Your task to perform on an android device: delete location history Image 0: 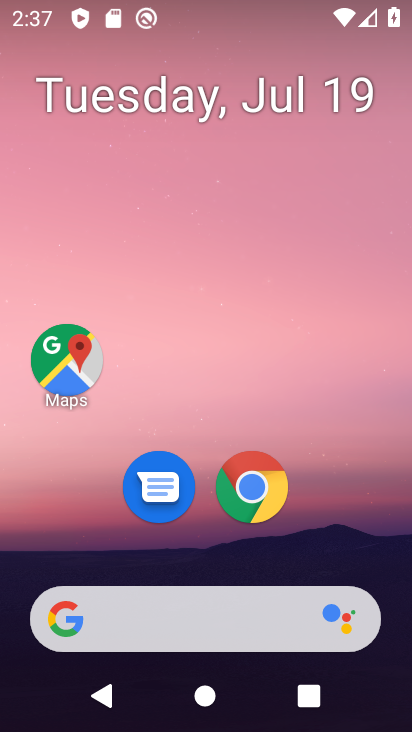
Step 0: click (52, 365)
Your task to perform on an android device: delete location history Image 1: 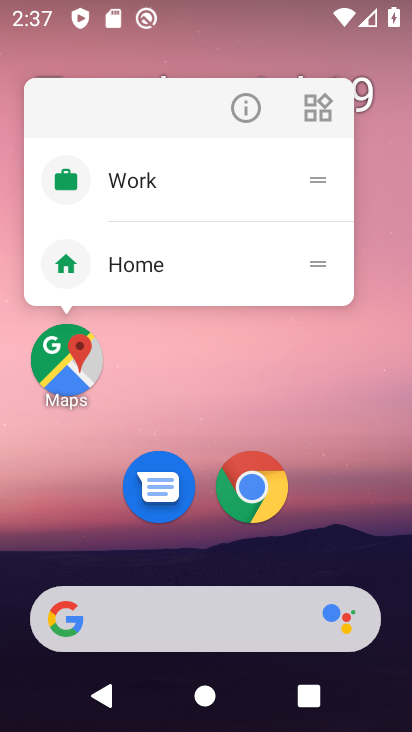
Step 1: click (65, 373)
Your task to perform on an android device: delete location history Image 2: 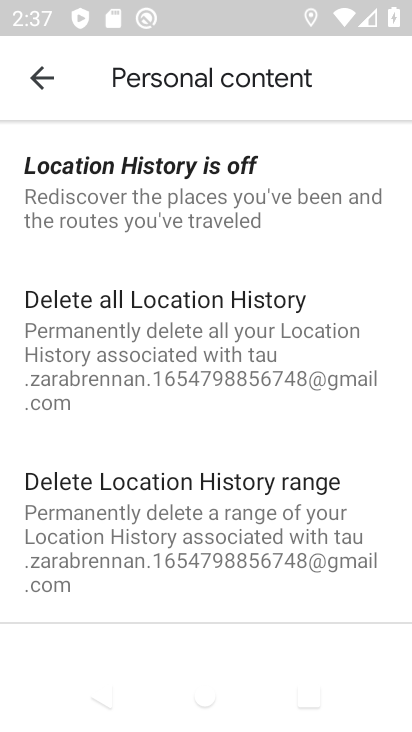
Step 2: click (126, 350)
Your task to perform on an android device: delete location history Image 3: 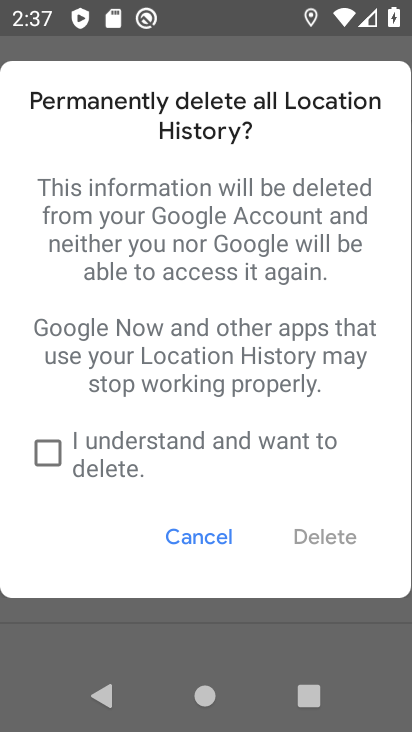
Step 3: click (49, 443)
Your task to perform on an android device: delete location history Image 4: 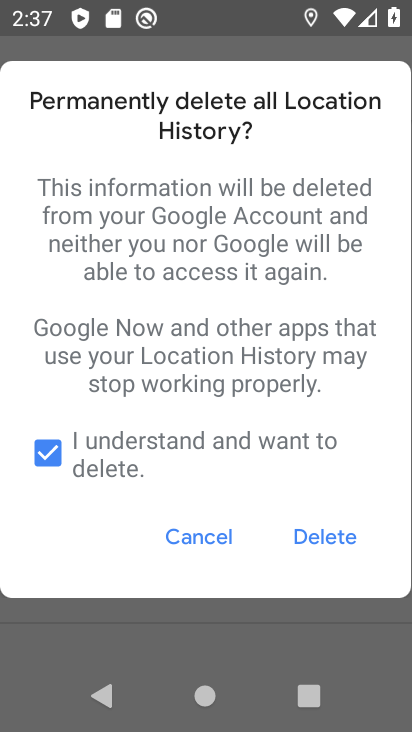
Step 4: click (310, 531)
Your task to perform on an android device: delete location history Image 5: 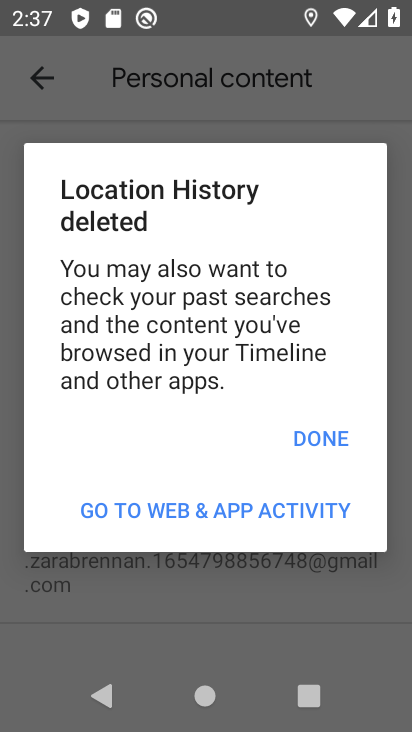
Step 5: click (327, 425)
Your task to perform on an android device: delete location history Image 6: 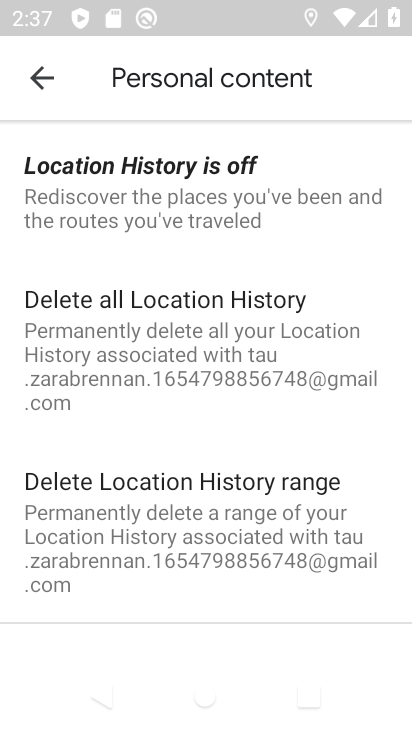
Step 6: task complete